Your task to perform on an android device: Open the Play Movies app and select the watchlist tab. Image 0: 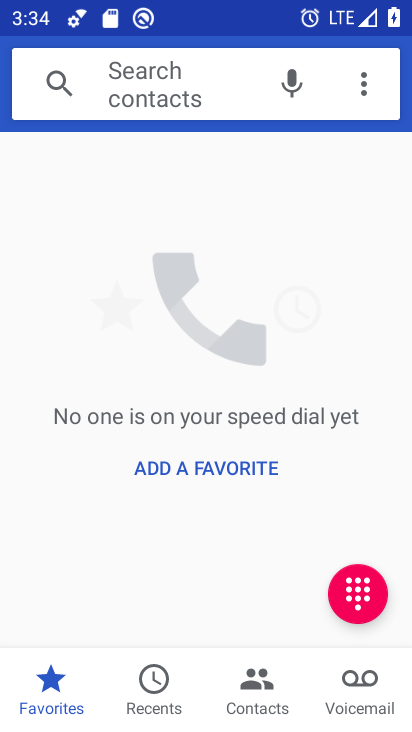
Step 0: press home button
Your task to perform on an android device: Open the Play Movies app and select the watchlist tab. Image 1: 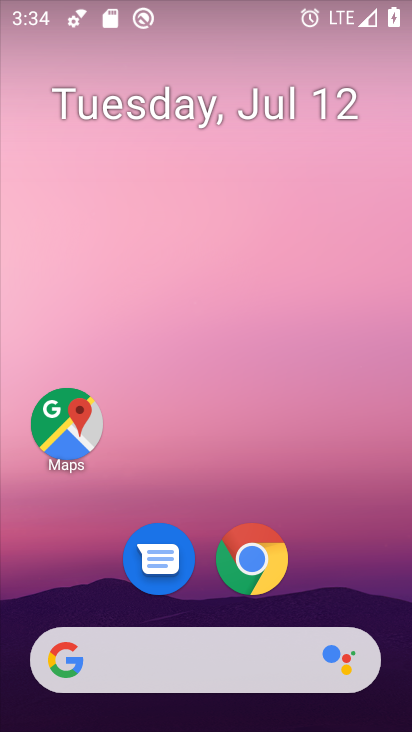
Step 1: drag from (366, 592) to (349, 225)
Your task to perform on an android device: Open the Play Movies app and select the watchlist tab. Image 2: 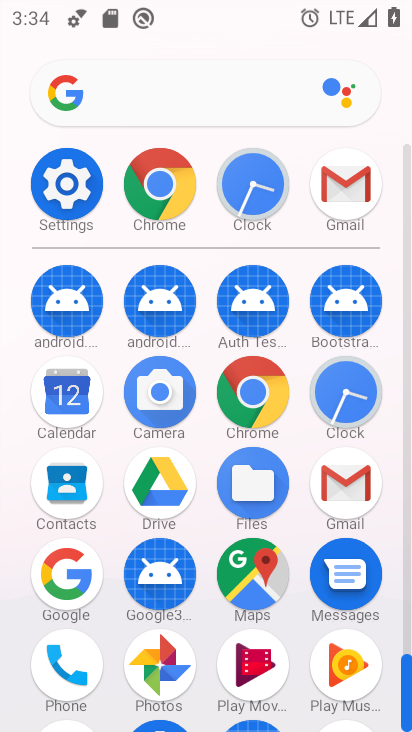
Step 2: click (257, 664)
Your task to perform on an android device: Open the Play Movies app and select the watchlist tab. Image 3: 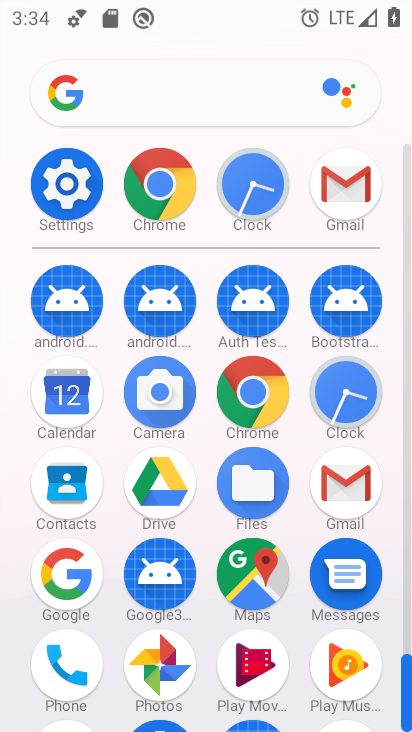
Step 3: click (278, 658)
Your task to perform on an android device: Open the Play Movies app and select the watchlist tab. Image 4: 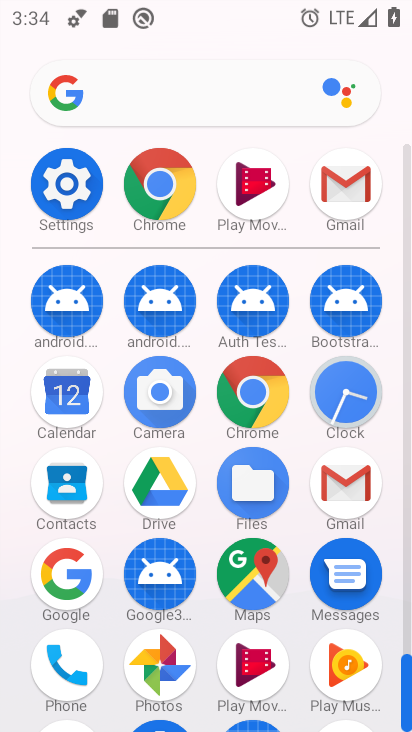
Step 4: click (247, 666)
Your task to perform on an android device: Open the Play Movies app and select the watchlist tab. Image 5: 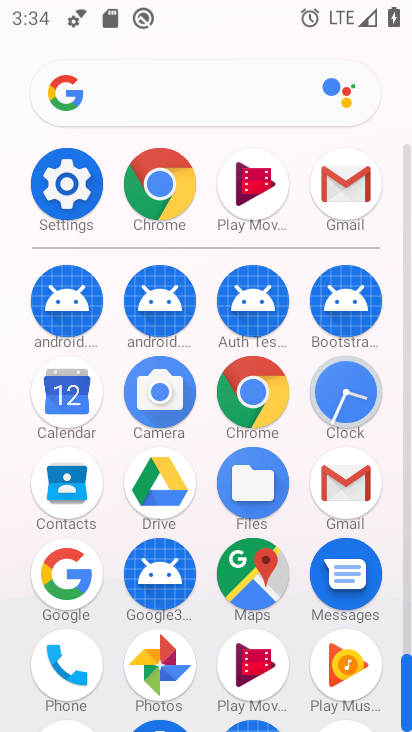
Step 5: task complete